Your task to perform on an android device: change keyboard looks Image 0: 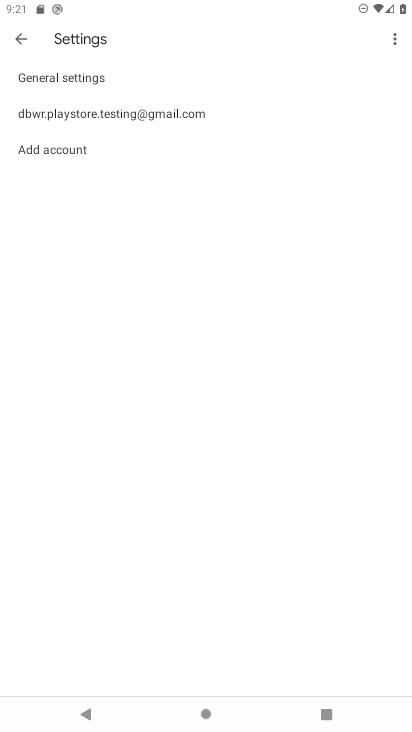
Step 0: press home button
Your task to perform on an android device: change keyboard looks Image 1: 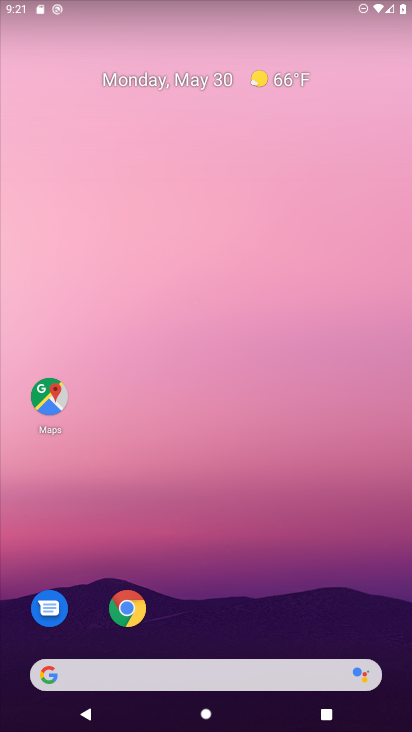
Step 1: drag from (227, 722) to (218, 13)
Your task to perform on an android device: change keyboard looks Image 2: 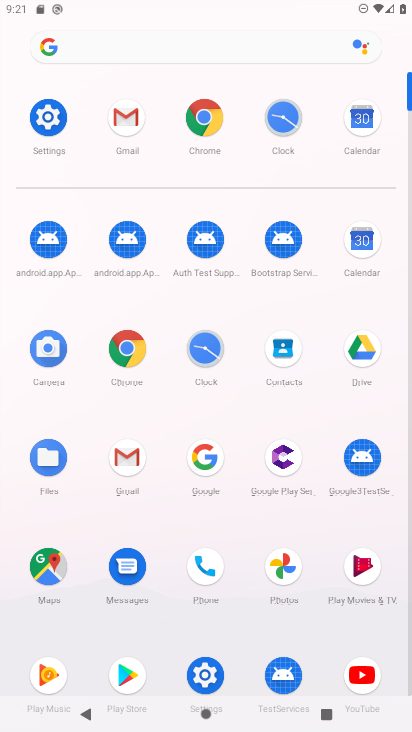
Step 2: click (43, 120)
Your task to perform on an android device: change keyboard looks Image 3: 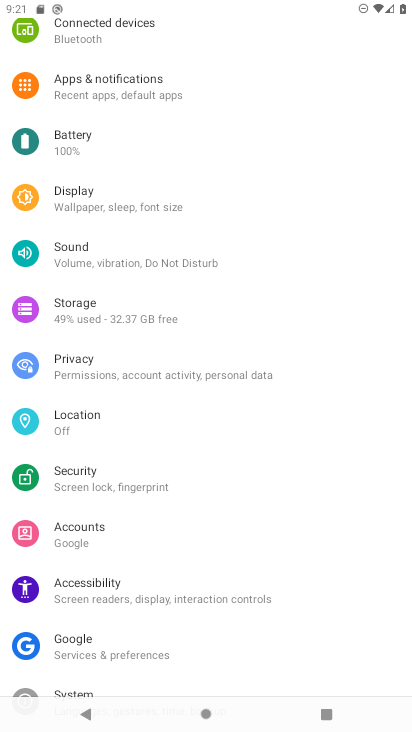
Step 3: drag from (132, 676) to (137, 190)
Your task to perform on an android device: change keyboard looks Image 4: 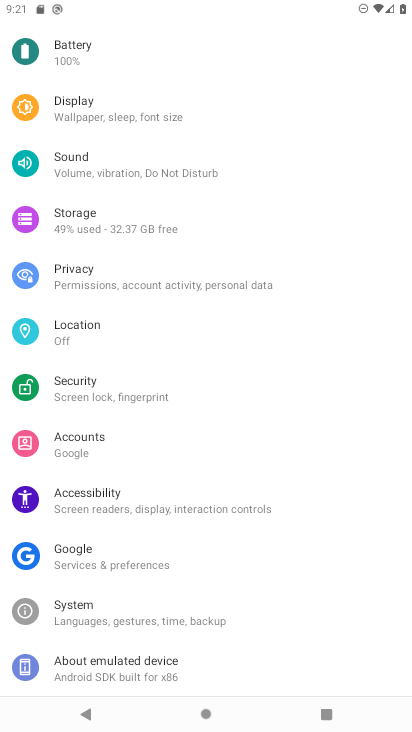
Step 4: click (102, 662)
Your task to perform on an android device: change keyboard looks Image 5: 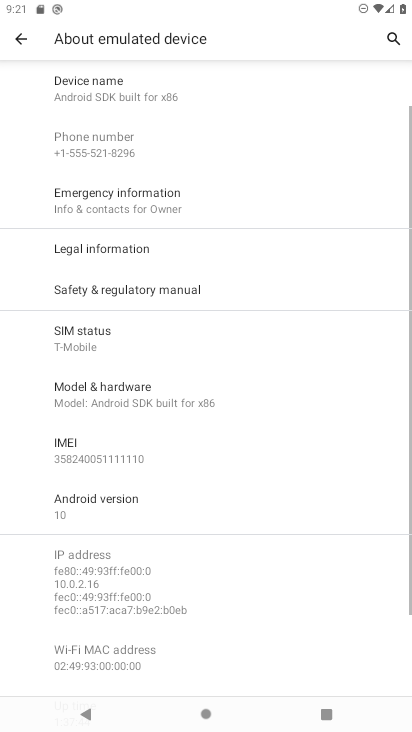
Step 5: click (22, 33)
Your task to perform on an android device: change keyboard looks Image 6: 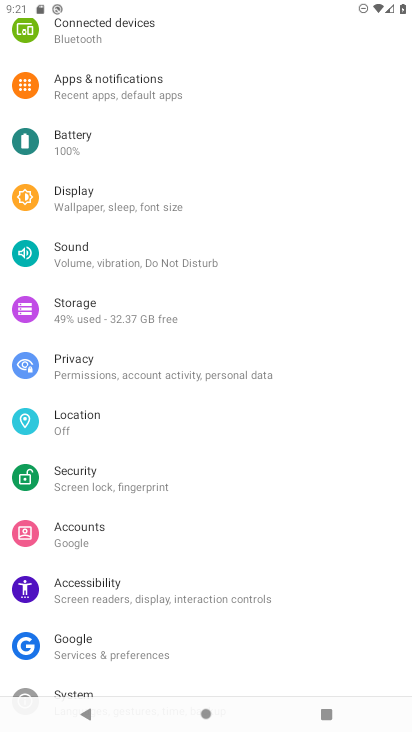
Step 6: drag from (159, 680) to (158, 241)
Your task to perform on an android device: change keyboard looks Image 7: 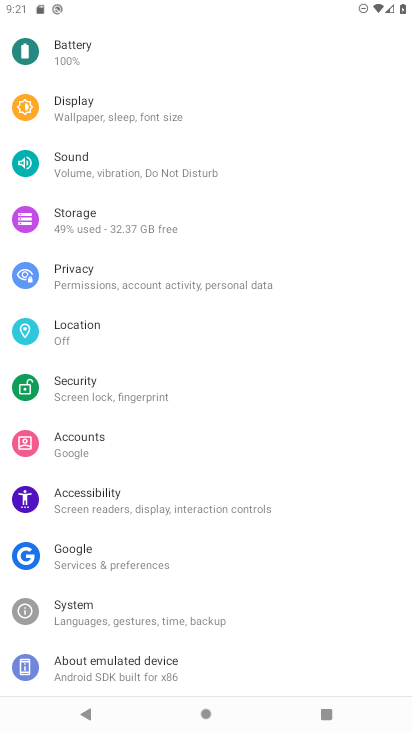
Step 7: click (86, 604)
Your task to perform on an android device: change keyboard looks Image 8: 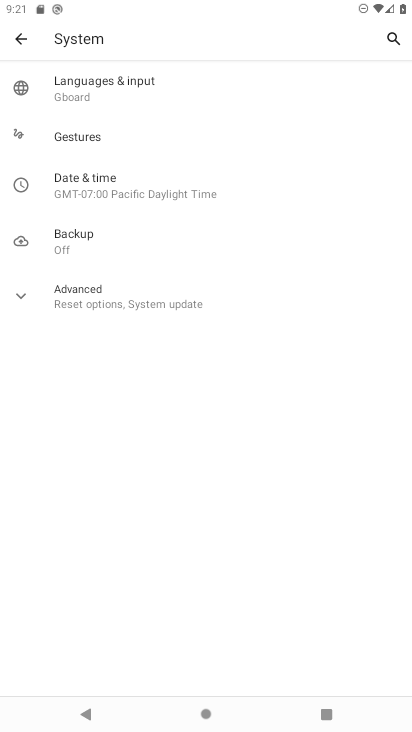
Step 8: click (86, 85)
Your task to perform on an android device: change keyboard looks Image 9: 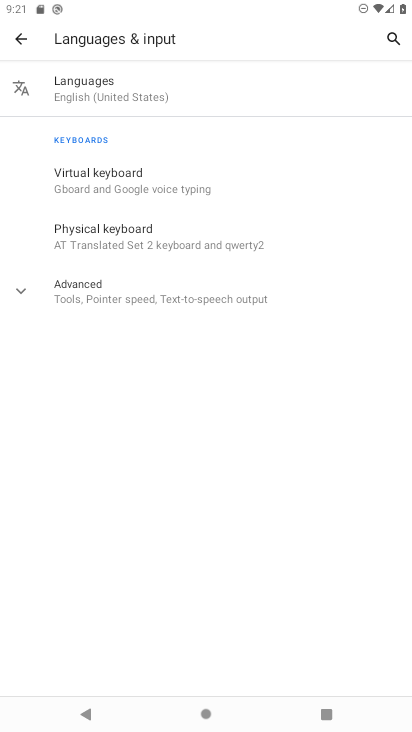
Step 9: click (100, 170)
Your task to perform on an android device: change keyboard looks Image 10: 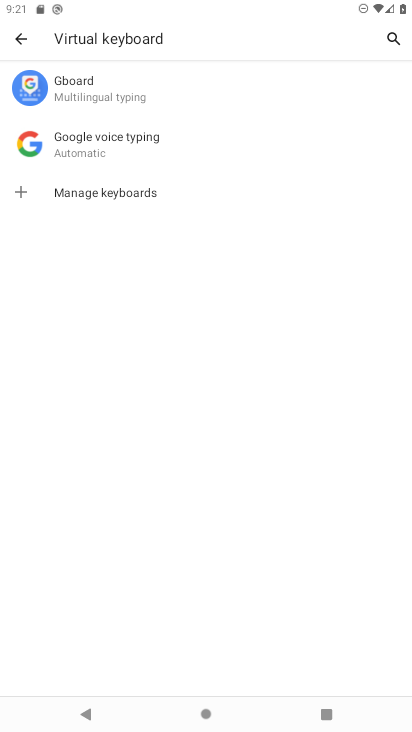
Step 10: click (80, 93)
Your task to perform on an android device: change keyboard looks Image 11: 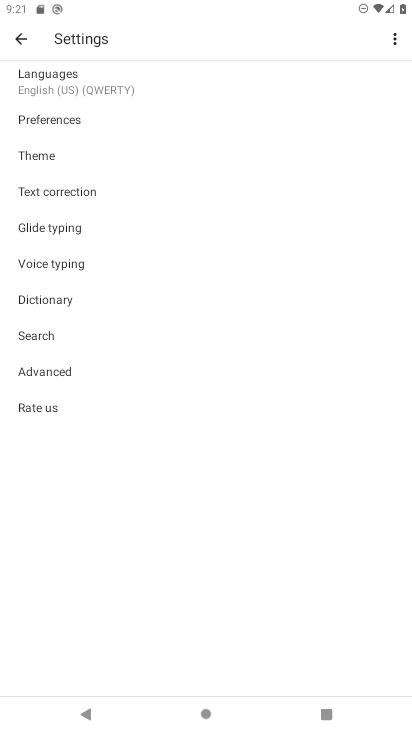
Step 11: click (26, 156)
Your task to perform on an android device: change keyboard looks Image 12: 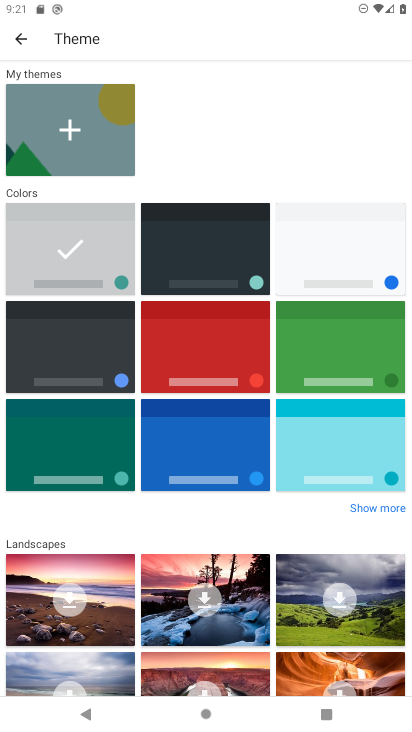
Step 12: click (208, 247)
Your task to perform on an android device: change keyboard looks Image 13: 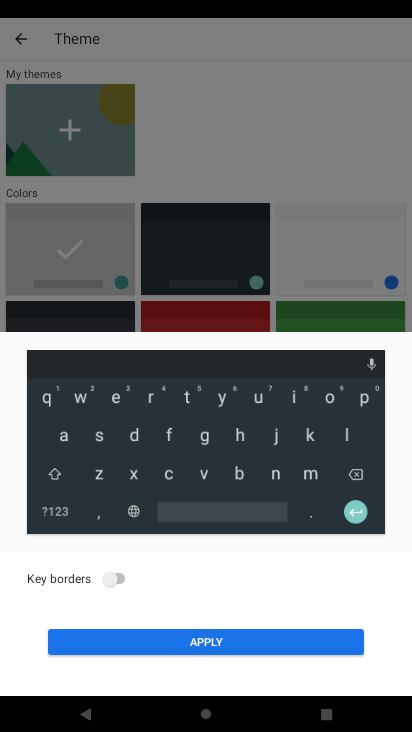
Step 13: click (117, 582)
Your task to perform on an android device: change keyboard looks Image 14: 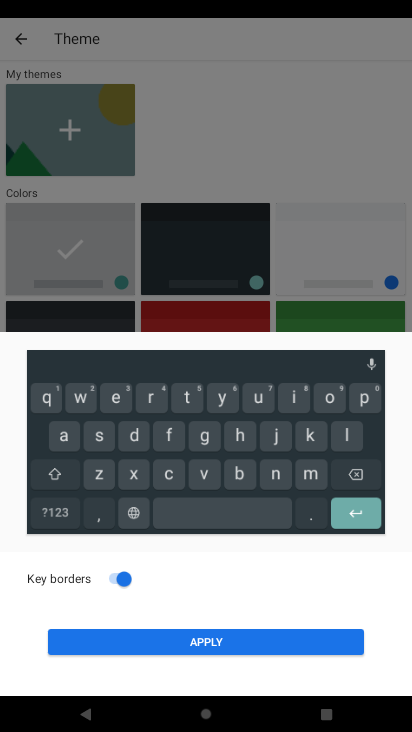
Step 14: click (207, 635)
Your task to perform on an android device: change keyboard looks Image 15: 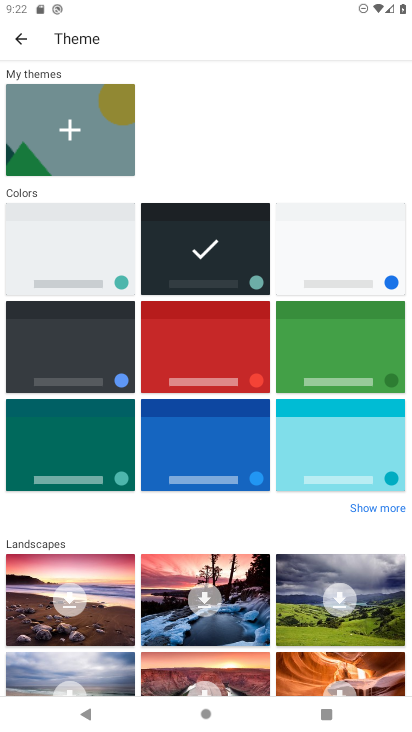
Step 15: task complete